Your task to perform on an android device: toggle translation in the chrome app Image 0: 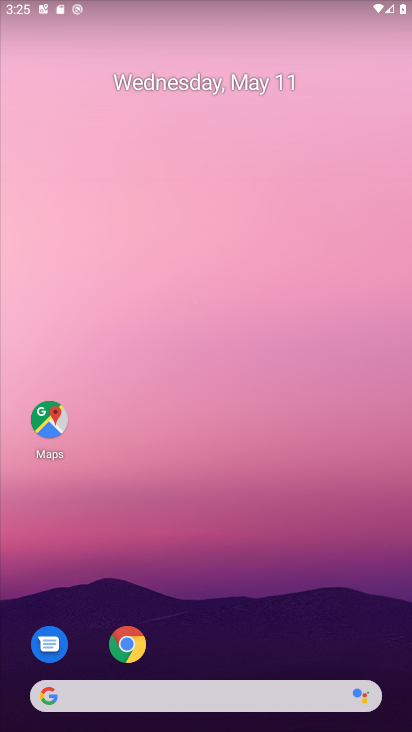
Step 0: click (107, 644)
Your task to perform on an android device: toggle translation in the chrome app Image 1: 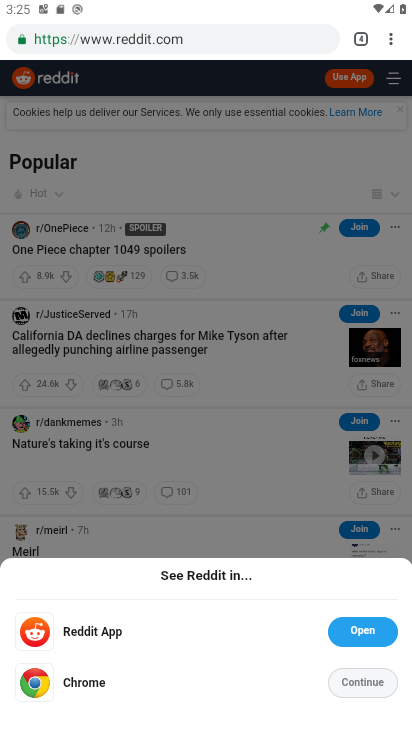
Step 1: click (345, 684)
Your task to perform on an android device: toggle translation in the chrome app Image 2: 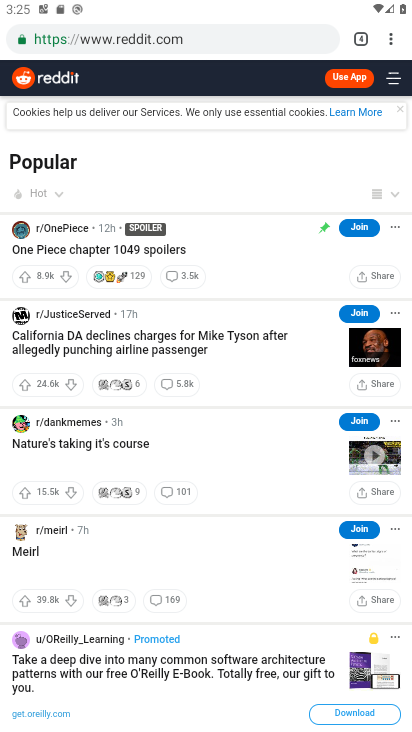
Step 2: click (385, 43)
Your task to perform on an android device: toggle translation in the chrome app Image 3: 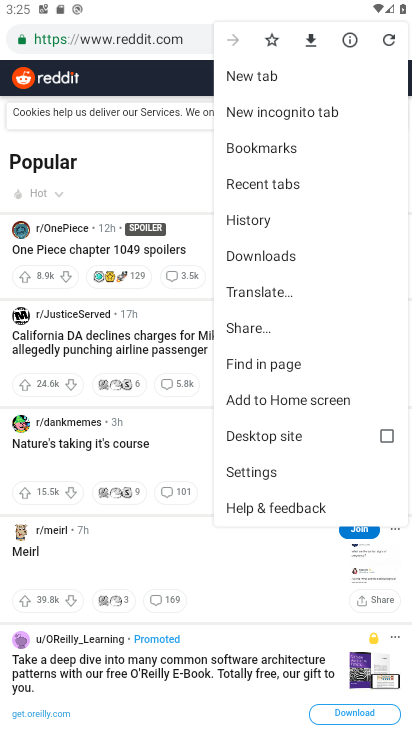
Step 3: click (268, 466)
Your task to perform on an android device: toggle translation in the chrome app Image 4: 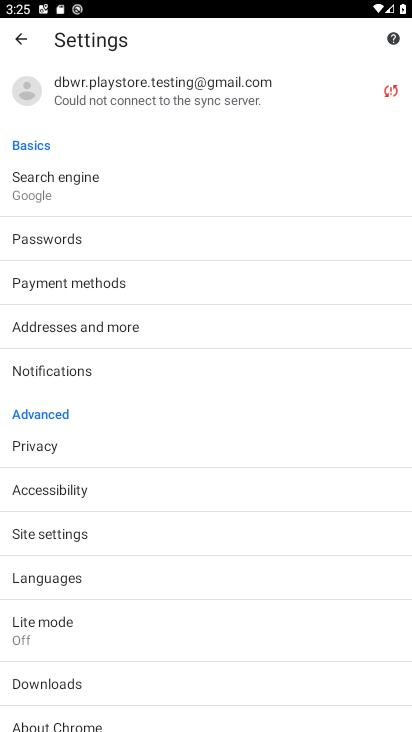
Step 4: click (59, 580)
Your task to perform on an android device: toggle translation in the chrome app Image 5: 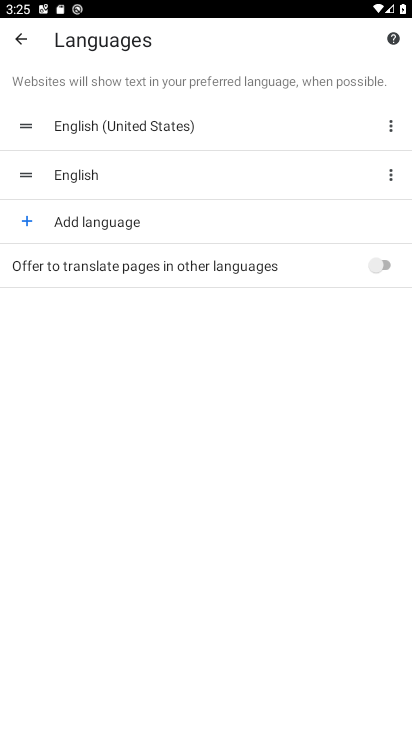
Step 5: click (119, 267)
Your task to perform on an android device: toggle translation in the chrome app Image 6: 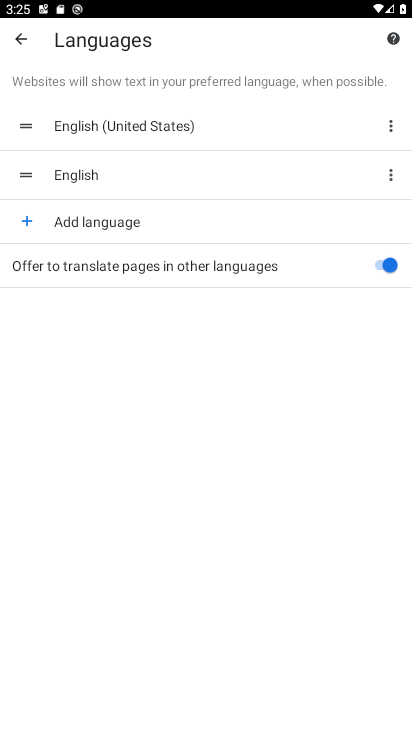
Step 6: task complete